Your task to perform on an android device: Open Google Chrome and open the bookmarks view Image 0: 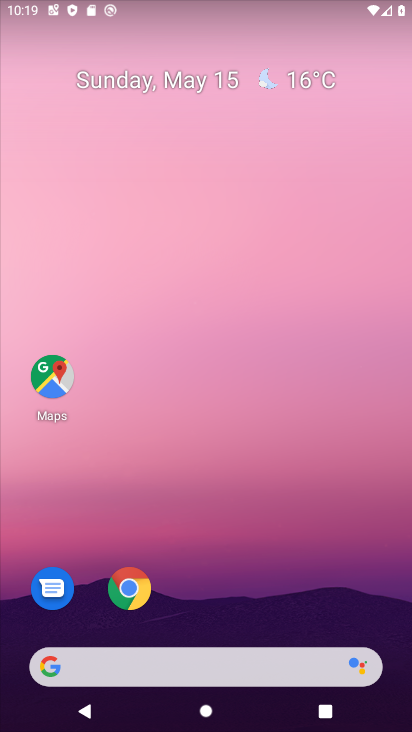
Step 0: click (130, 587)
Your task to perform on an android device: Open Google Chrome and open the bookmarks view Image 1: 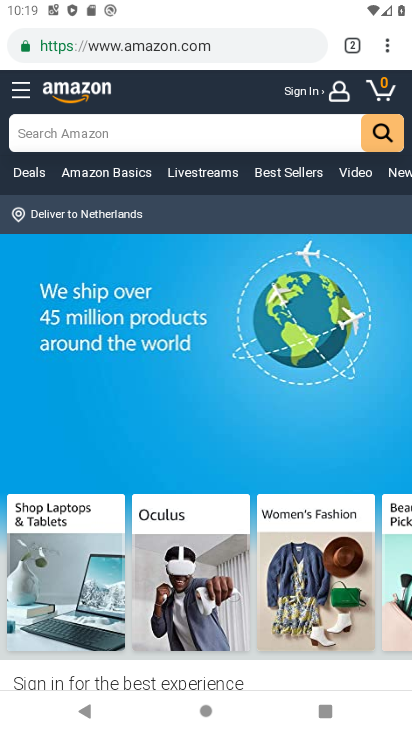
Step 1: click (389, 37)
Your task to perform on an android device: Open Google Chrome and open the bookmarks view Image 2: 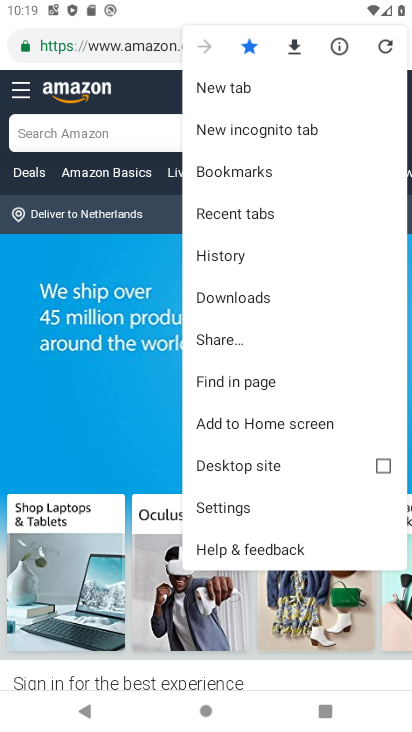
Step 2: click (256, 178)
Your task to perform on an android device: Open Google Chrome and open the bookmarks view Image 3: 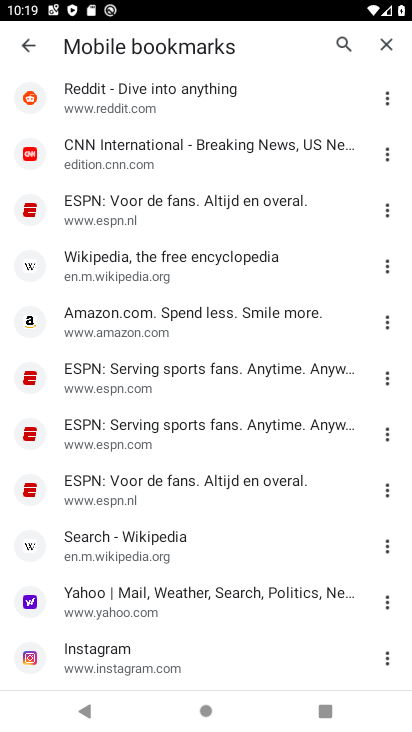
Step 3: task complete